Your task to perform on an android device: turn on translation in the chrome app Image 0: 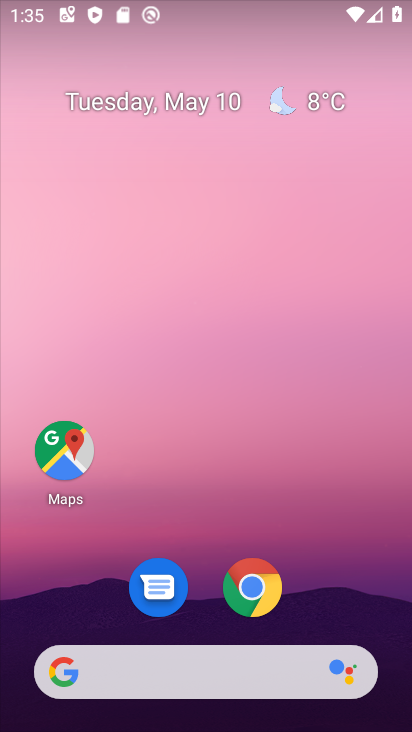
Step 0: click (261, 583)
Your task to perform on an android device: turn on translation in the chrome app Image 1: 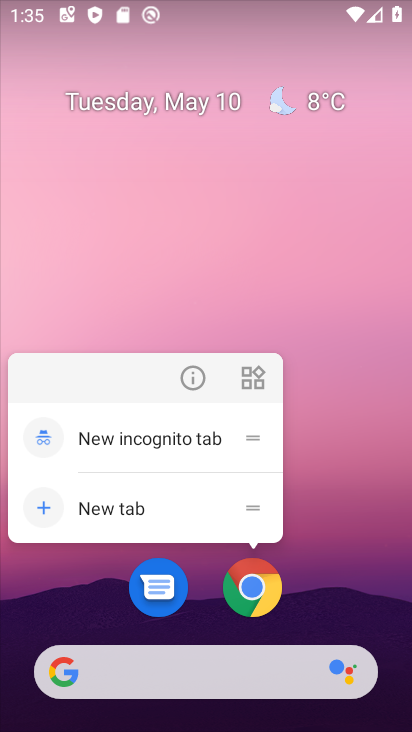
Step 1: click (257, 597)
Your task to perform on an android device: turn on translation in the chrome app Image 2: 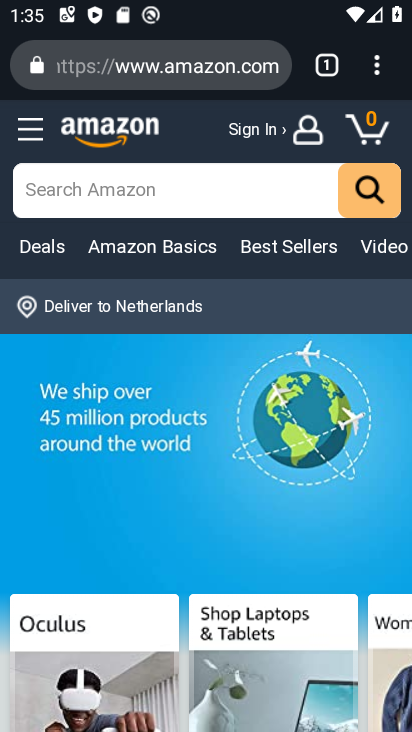
Step 2: click (381, 72)
Your task to perform on an android device: turn on translation in the chrome app Image 3: 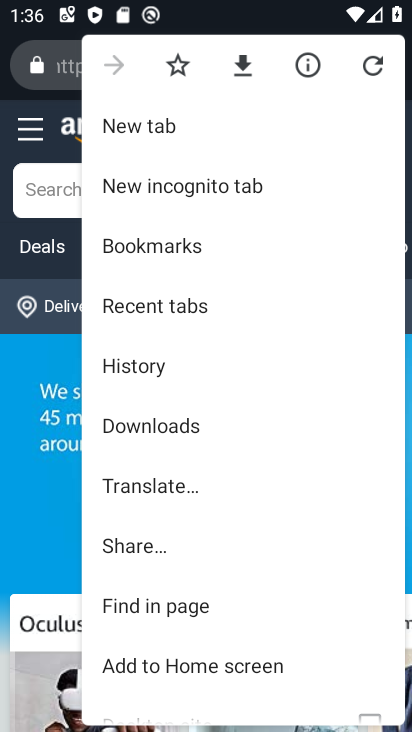
Step 3: drag from (203, 601) to (208, 198)
Your task to perform on an android device: turn on translation in the chrome app Image 4: 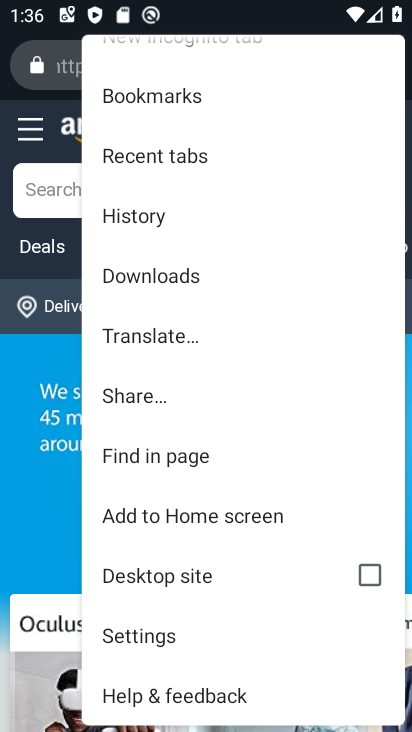
Step 4: drag from (193, 622) to (179, 349)
Your task to perform on an android device: turn on translation in the chrome app Image 5: 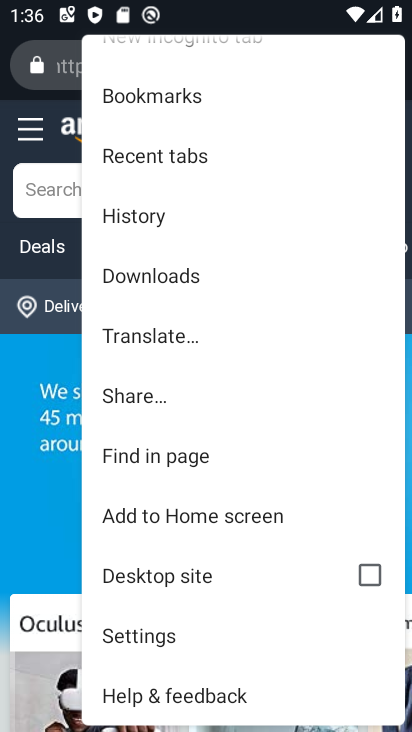
Step 5: drag from (204, 242) to (223, 206)
Your task to perform on an android device: turn on translation in the chrome app Image 6: 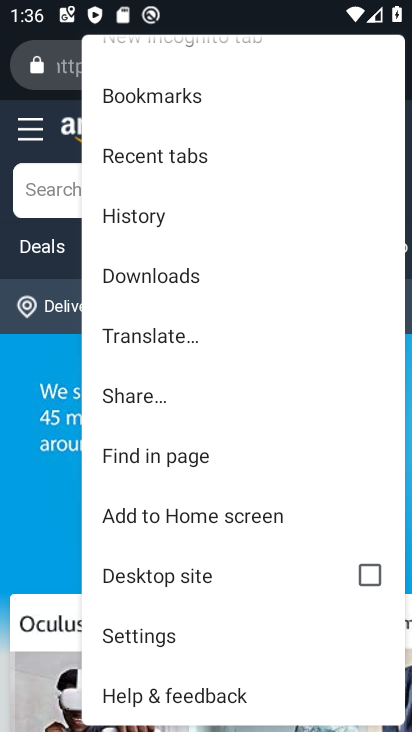
Step 6: click (179, 639)
Your task to perform on an android device: turn on translation in the chrome app Image 7: 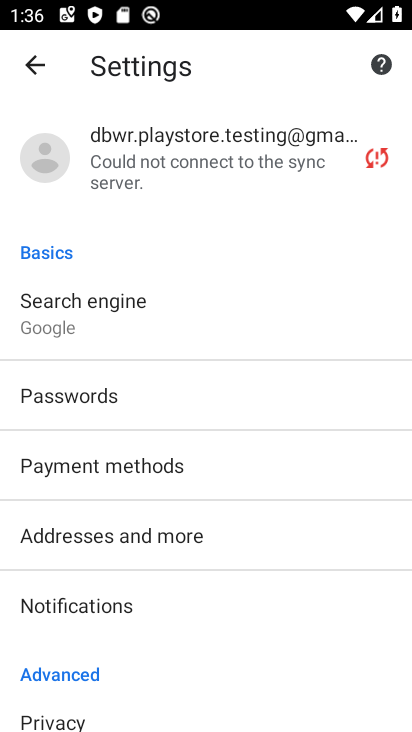
Step 7: drag from (165, 679) to (146, 452)
Your task to perform on an android device: turn on translation in the chrome app Image 8: 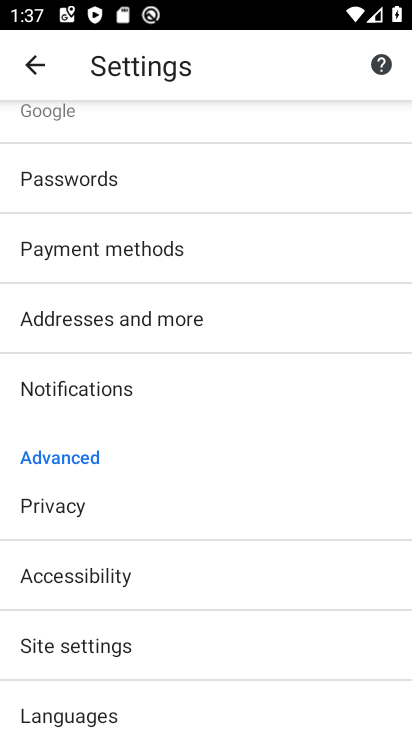
Step 8: drag from (274, 637) to (250, 412)
Your task to perform on an android device: turn on translation in the chrome app Image 9: 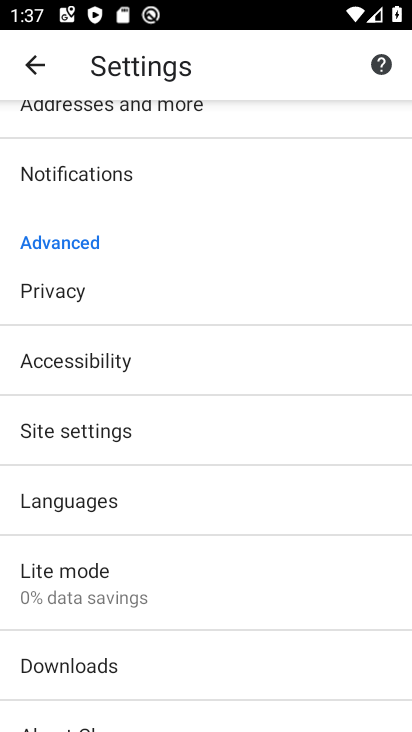
Step 9: click (173, 496)
Your task to perform on an android device: turn on translation in the chrome app Image 10: 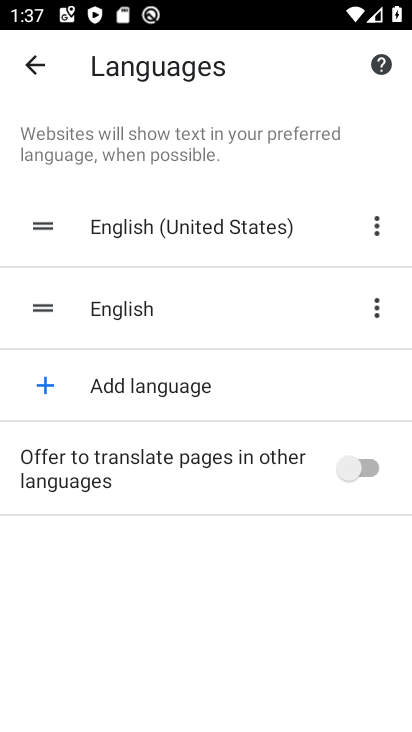
Step 10: click (348, 465)
Your task to perform on an android device: turn on translation in the chrome app Image 11: 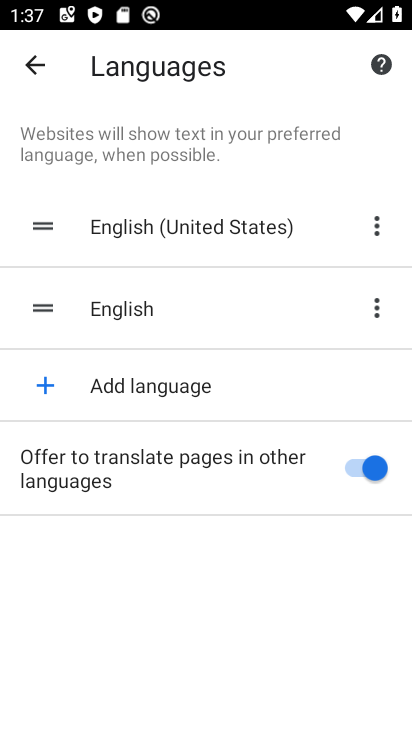
Step 11: task complete